Your task to perform on an android device: Open the web browser Image 0: 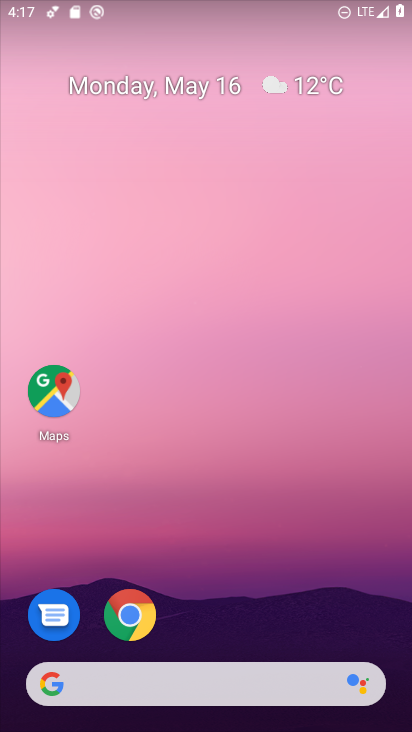
Step 0: click (131, 615)
Your task to perform on an android device: Open the web browser Image 1: 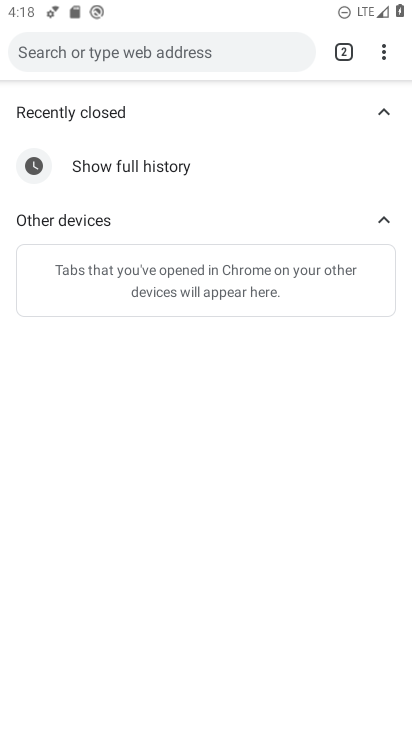
Step 1: task complete